Your task to perform on an android device: toggle priority inbox in the gmail app Image 0: 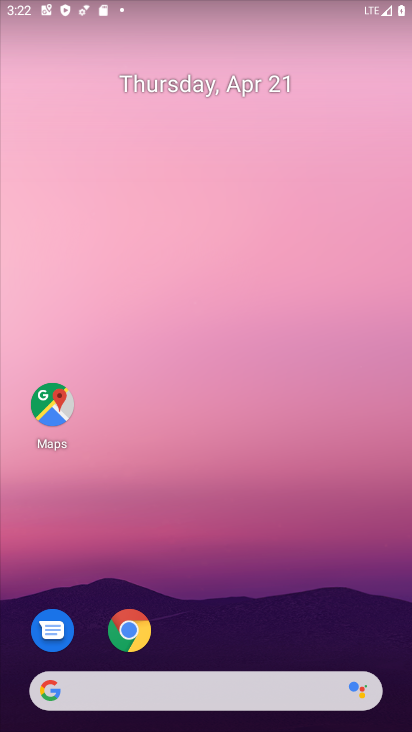
Step 0: drag from (211, 622) to (293, 99)
Your task to perform on an android device: toggle priority inbox in the gmail app Image 1: 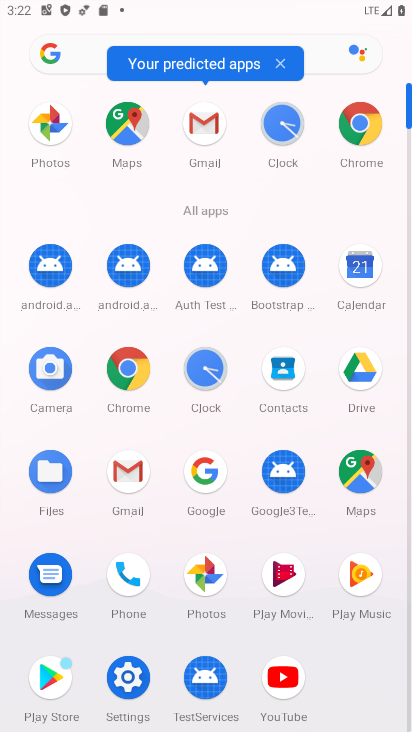
Step 1: click (202, 122)
Your task to perform on an android device: toggle priority inbox in the gmail app Image 2: 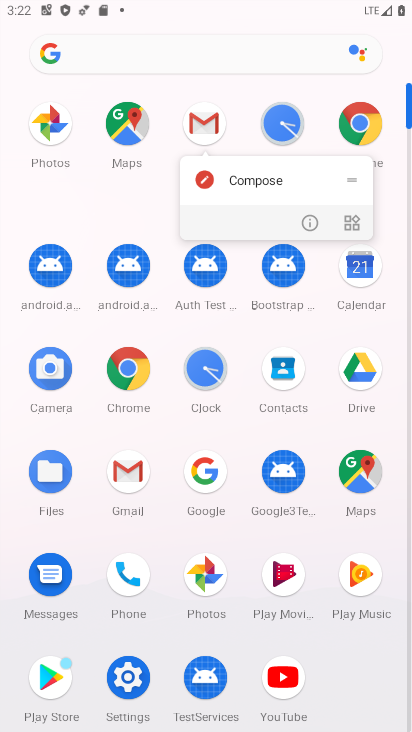
Step 2: click (202, 122)
Your task to perform on an android device: toggle priority inbox in the gmail app Image 3: 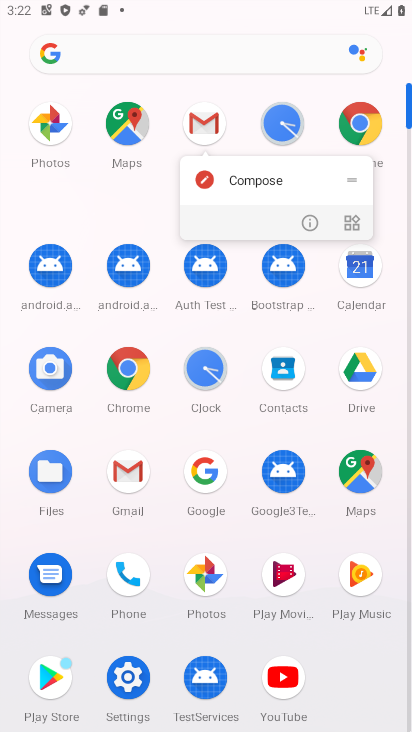
Step 3: click (202, 122)
Your task to perform on an android device: toggle priority inbox in the gmail app Image 4: 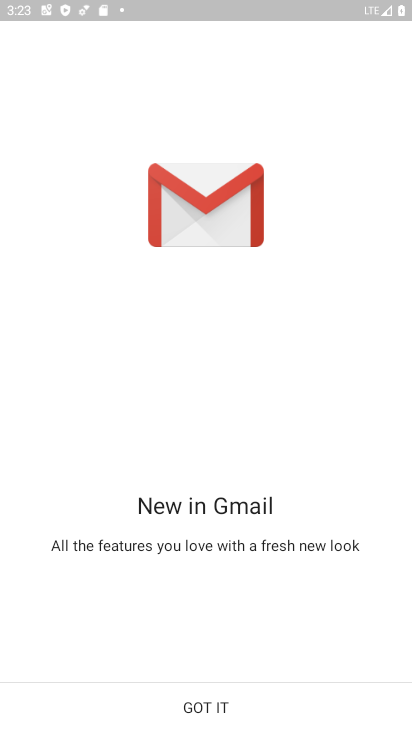
Step 4: click (203, 701)
Your task to perform on an android device: toggle priority inbox in the gmail app Image 5: 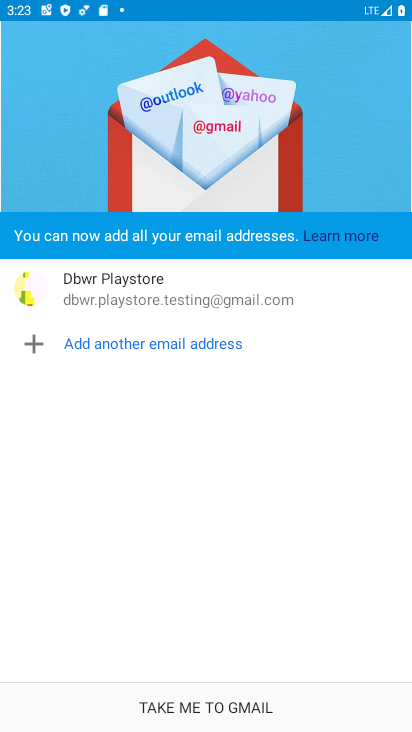
Step 5: click (182, 701)
Your task to perform on an android device: toggle priority inbox in the gmail app Image 6: 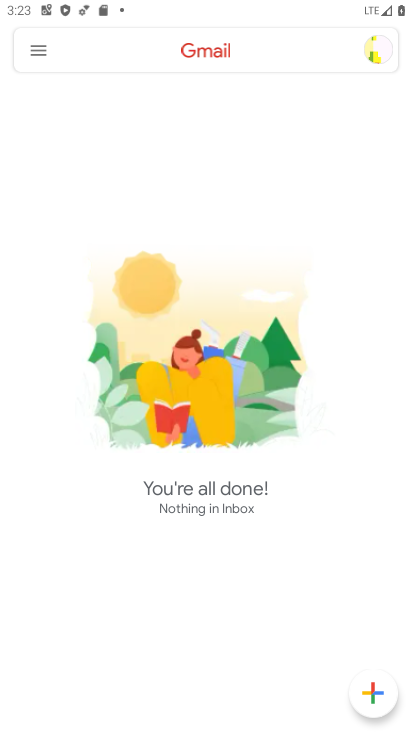
Step 6: click (34, 49)
Your task to perform on an android device: toggle priority inbox in the gmail app Image 7: 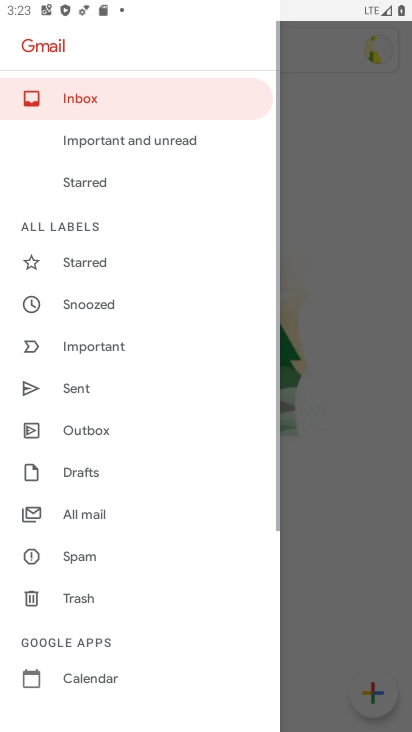
Step 7: drag from (108, 601) to (222, 62)
Your task to perform on an android device: toggle priority inbox in the gmail app Image 8: 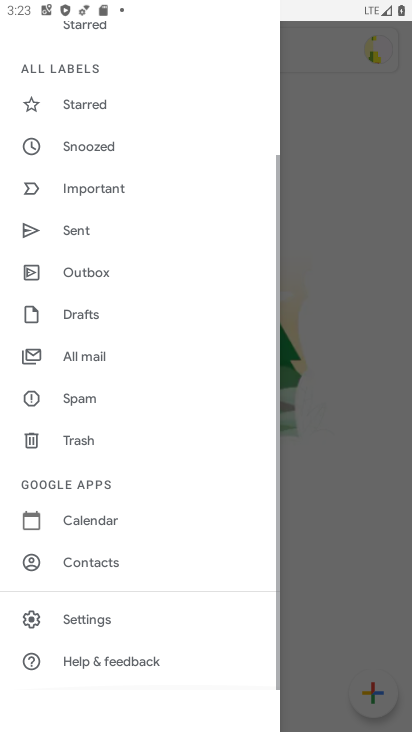
Step 8: click (98, 619)
Your task to perform on an android device: toggle priority inbox in the gmail app Image 9: 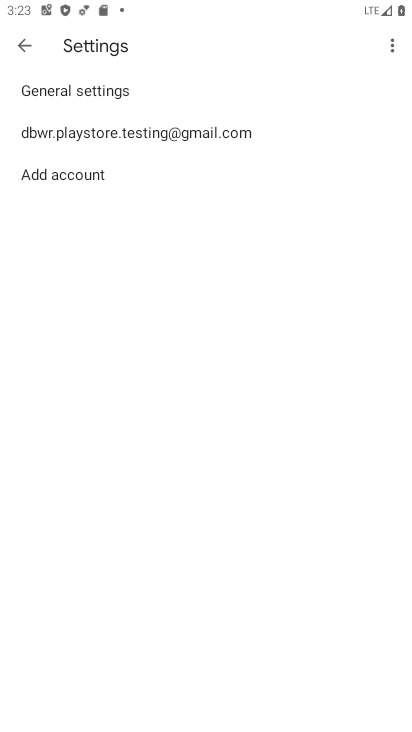
Step 9: click (118, 138)
Your task to perform on an android device: toggle priority inbox in the gmail app Image 10: 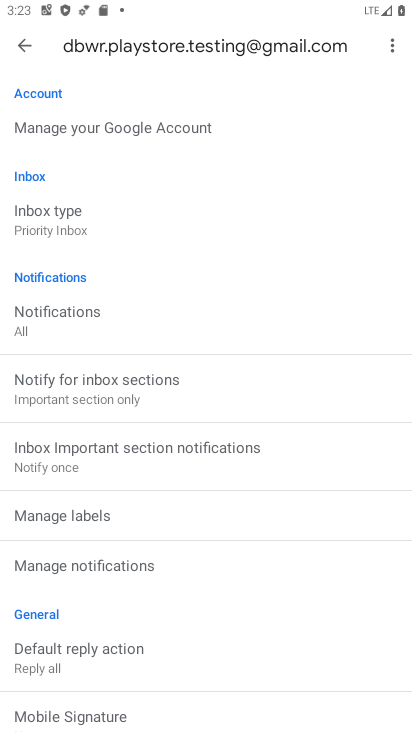
Step 10: click (87, 224)
Your task to perform on an android device: toggle priority inbox in the gmail app Image 11: 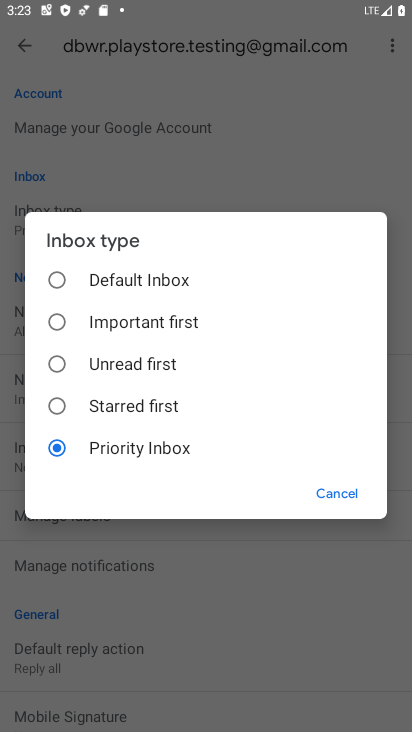
Step 11: click (54, 447)
Your task to perform on an android device: toggle priority inbox in the gmail app Image 12: 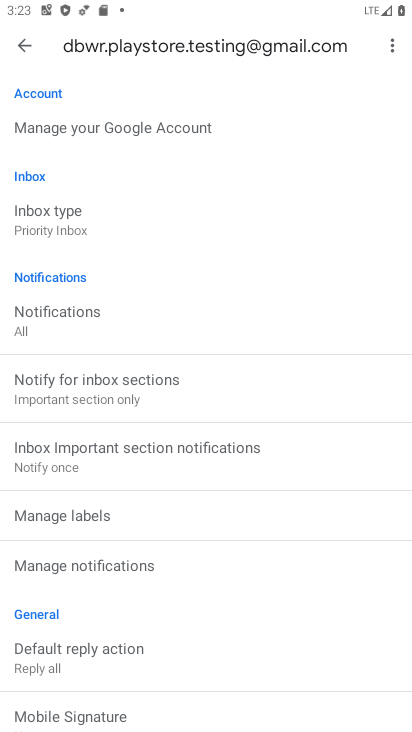
Step 12: task complete